Your task to perform on an android device: Open Maps and search for coffee Image 0: 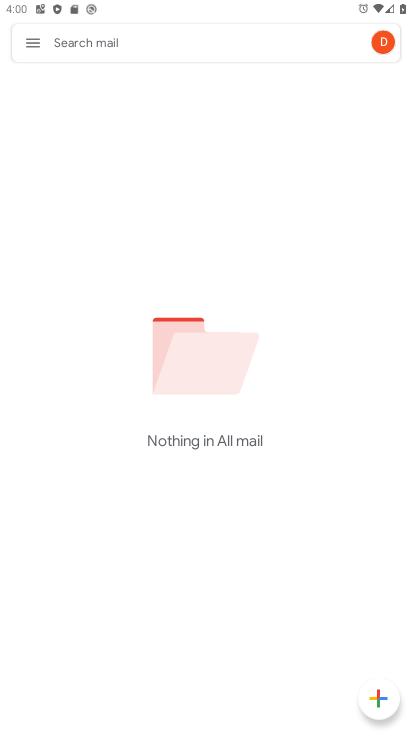
Step 0: press home button
Your task to perform on an android device: Open Maps and search for coffee Image 1: 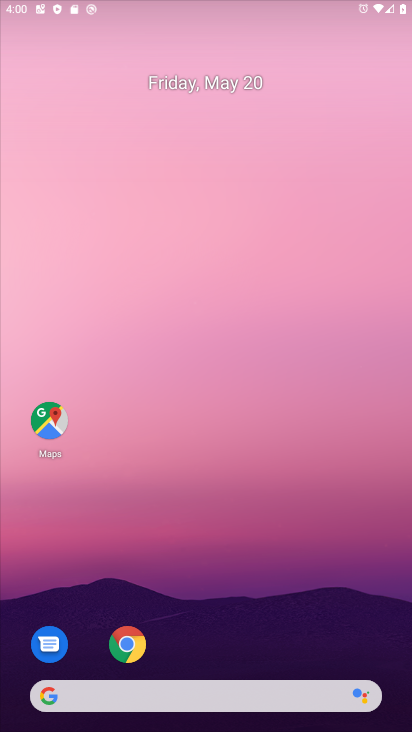
Step 1: drag from (230, 598) to (233, 46)
Your task to perform on an android device: Open Maps and search for coffee Image 2: 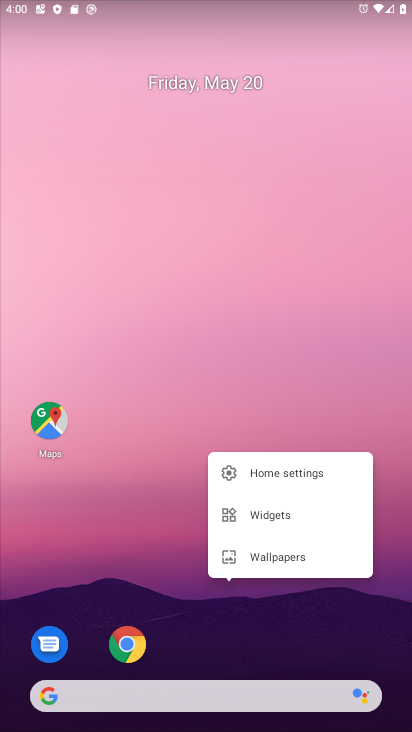
Step 2: click (131, 656)
Your task to perform on an android device: Open Maps and search for coffee Image 3: 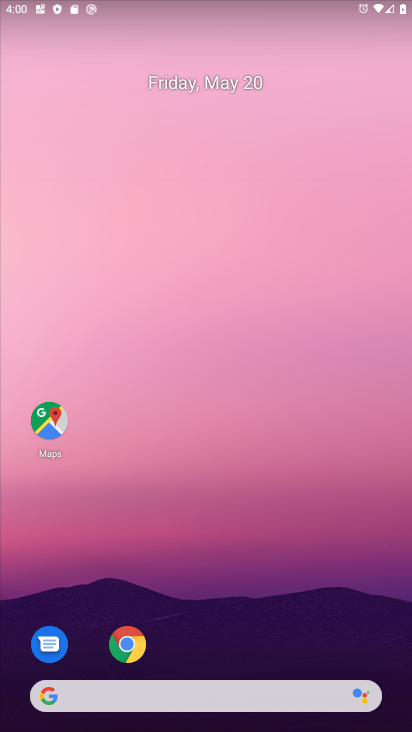
Step 3: click (59, 419)
Your task to perform on an android device: Open Maps and search for coffee Image 4: 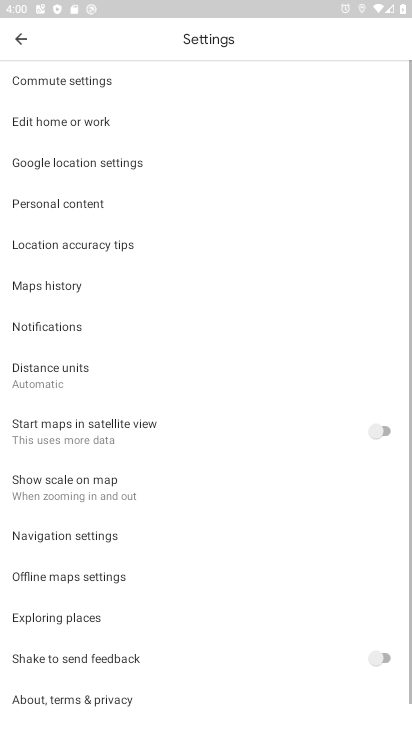
Step 4: click (24, 32)
Your task to perform on an android device: Open Maps and search for coffee Image 5: 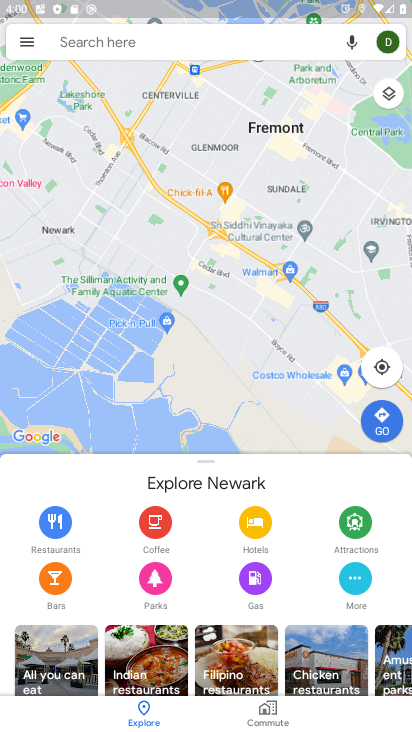
Step 5: click (190, 41)
Your task to perform on an android device: Open Maps and search for coffee Image 6: 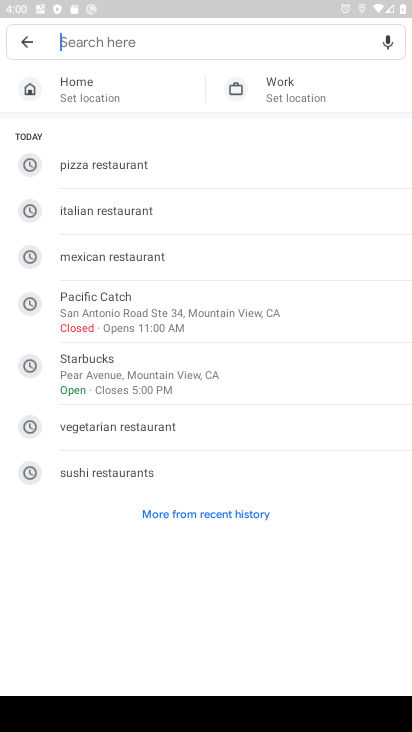
Step 6: type "coffee"
Your task to perform on an android device: Open Maps and search for coffee Image 7: 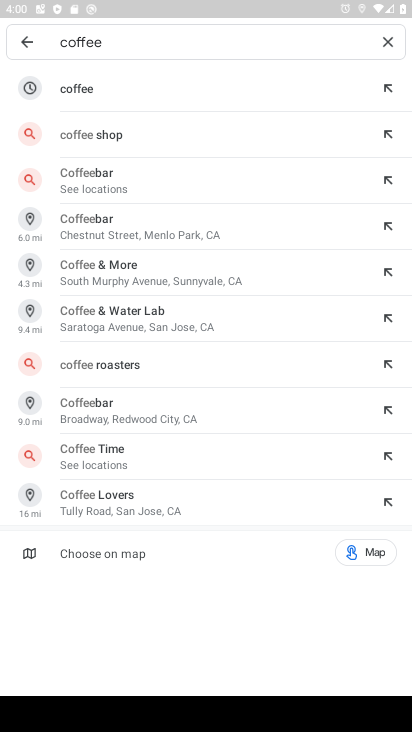
Step 7: click (119, 100)
Your task to perform on an android device: Open Maps and search for coffee Image 8: 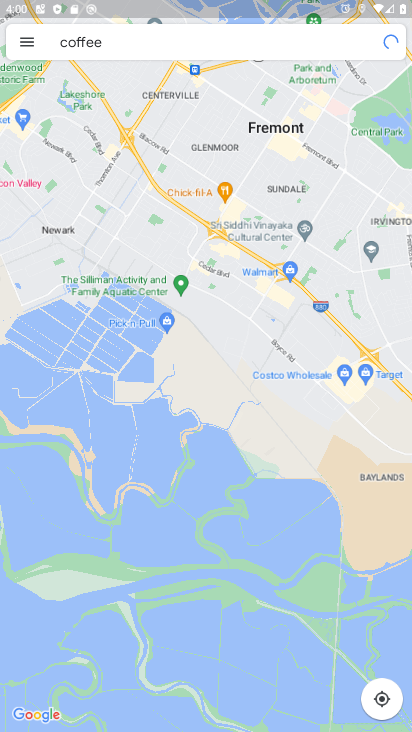
Step 8: task complete